Your task to perform on an android device: Open notification settings Image 0: 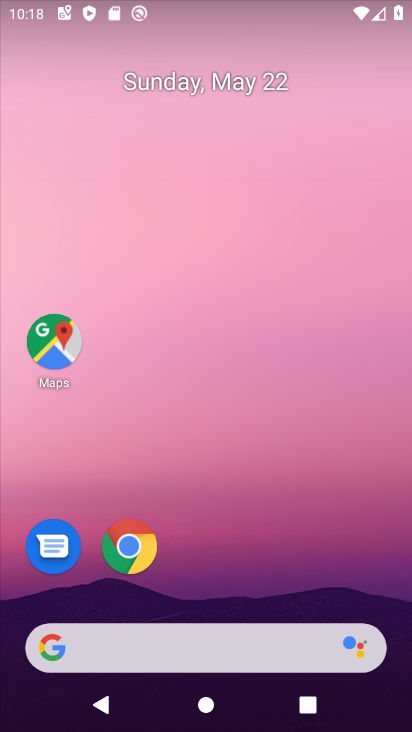
Step 0: drag from (202, 577) to (378, 14)
Your task to perform on an android device: Open notification settings Image 1: 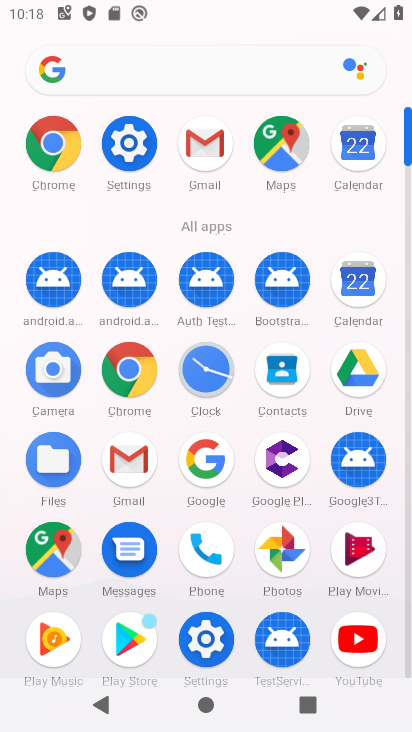
Step 1: click (134, 156)
Your task to perform on an android device: Open notification settings Image 2: 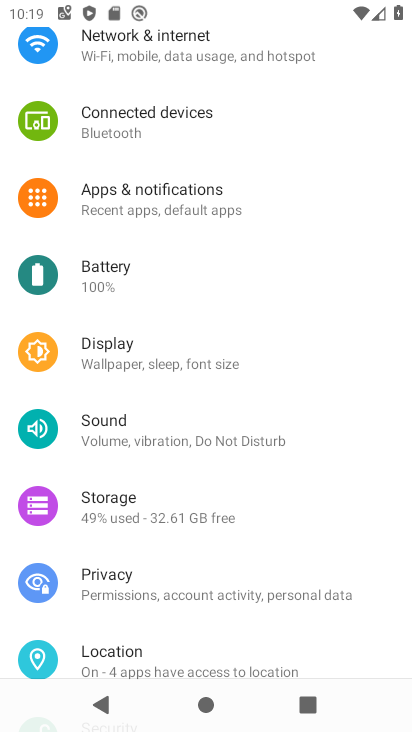
Step 2: click (197, 193)
Your task to perform on an android device: Open notification settings Image 3: 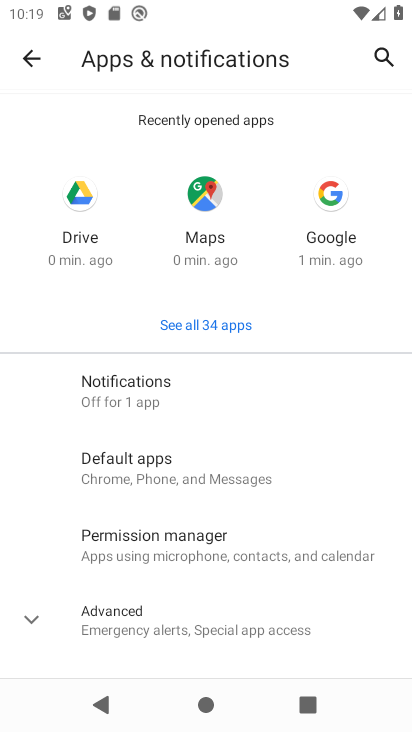
Step 3: click (151, 399)
Your task to perform on an android device: Open notification settings Image 4: 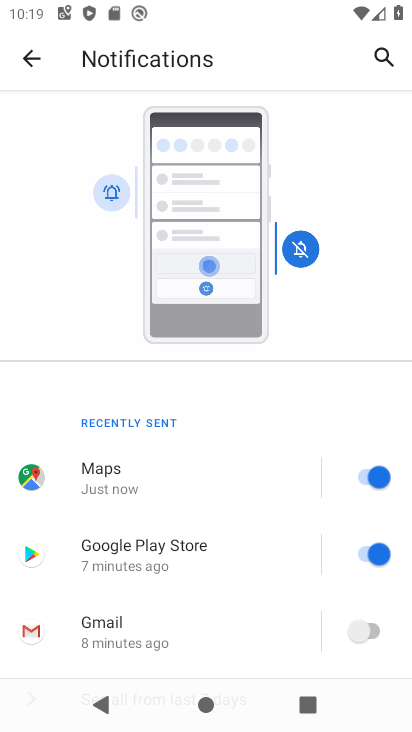
Step 4: task complete